Your task to perform on an android device: What's the weather? Image 0: 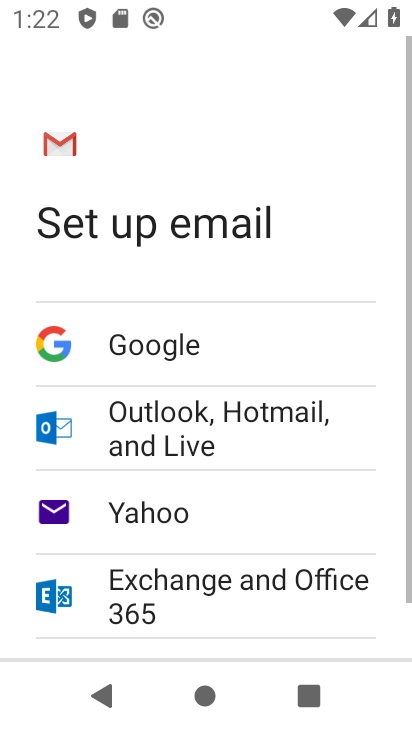
Step 0: press home button
Your task to perform on an android device: What's the weather? Image 1: 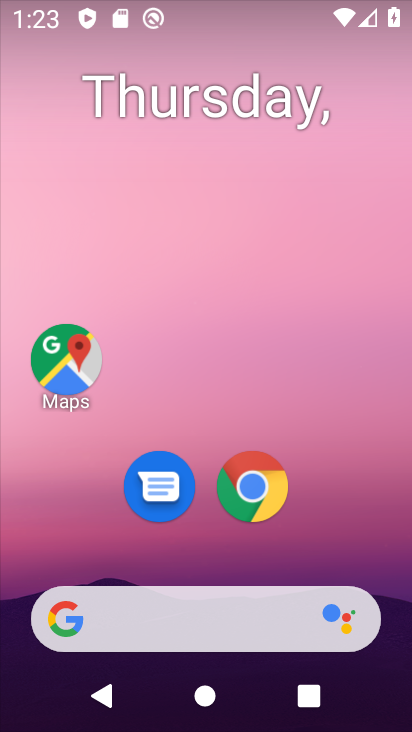
Step 1: drag from (406, 552) to (364, 50)
Your task to perform on an android device: What's the weather? Image 2: 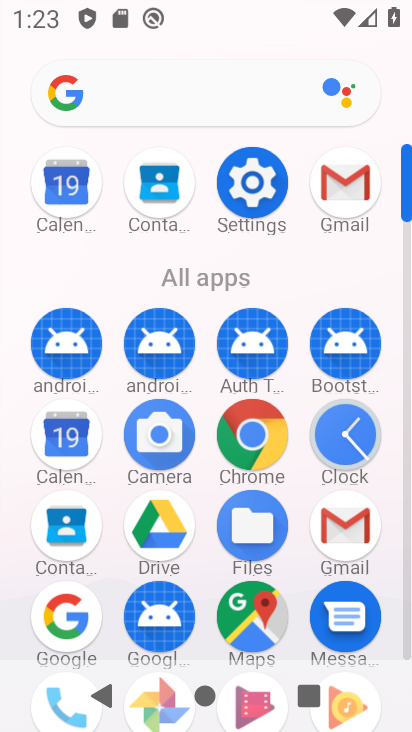
Step 2: click (265, 460)
Your task to perform on an android device: What's the weather? Image 3: 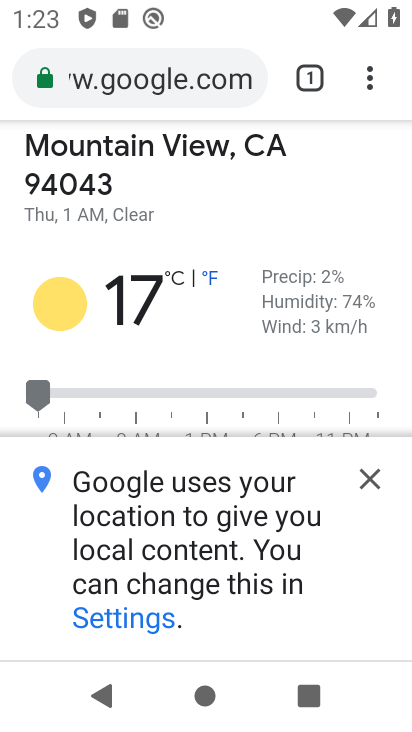
Step 3: click (206, 70)
Your task to perform on an android device: What's the weather? Image 4: 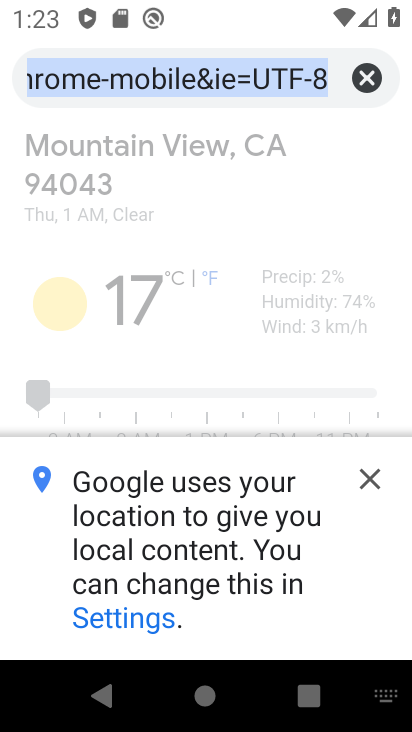
Step 4: type "weather"
Your task to perform on an android device: What's the weather? Image 5: 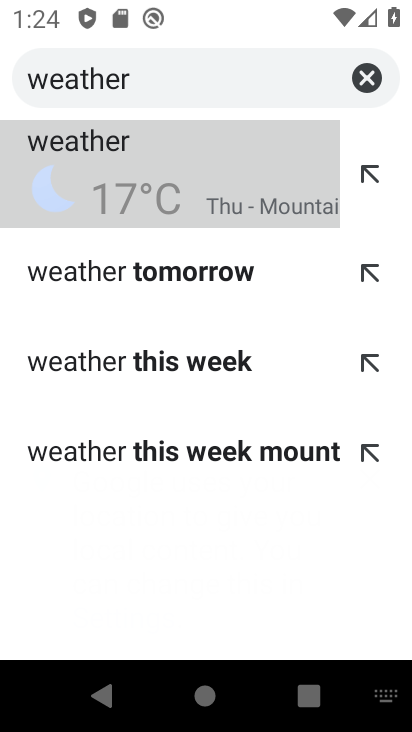
Step 5: click (167, 196)
Your task to perform on an android device: What's the weather? Image 6: 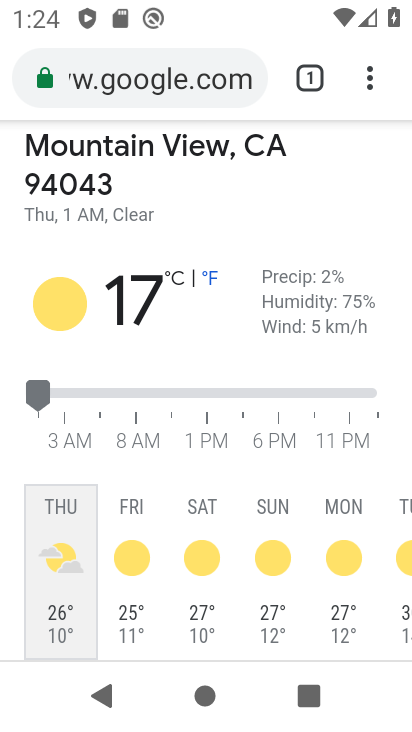
Step 6: task complete